Your task to perform on an android device: Clear the cart on newegg. Add razer naga to the cart on newegg, then select checkout. Image 0: 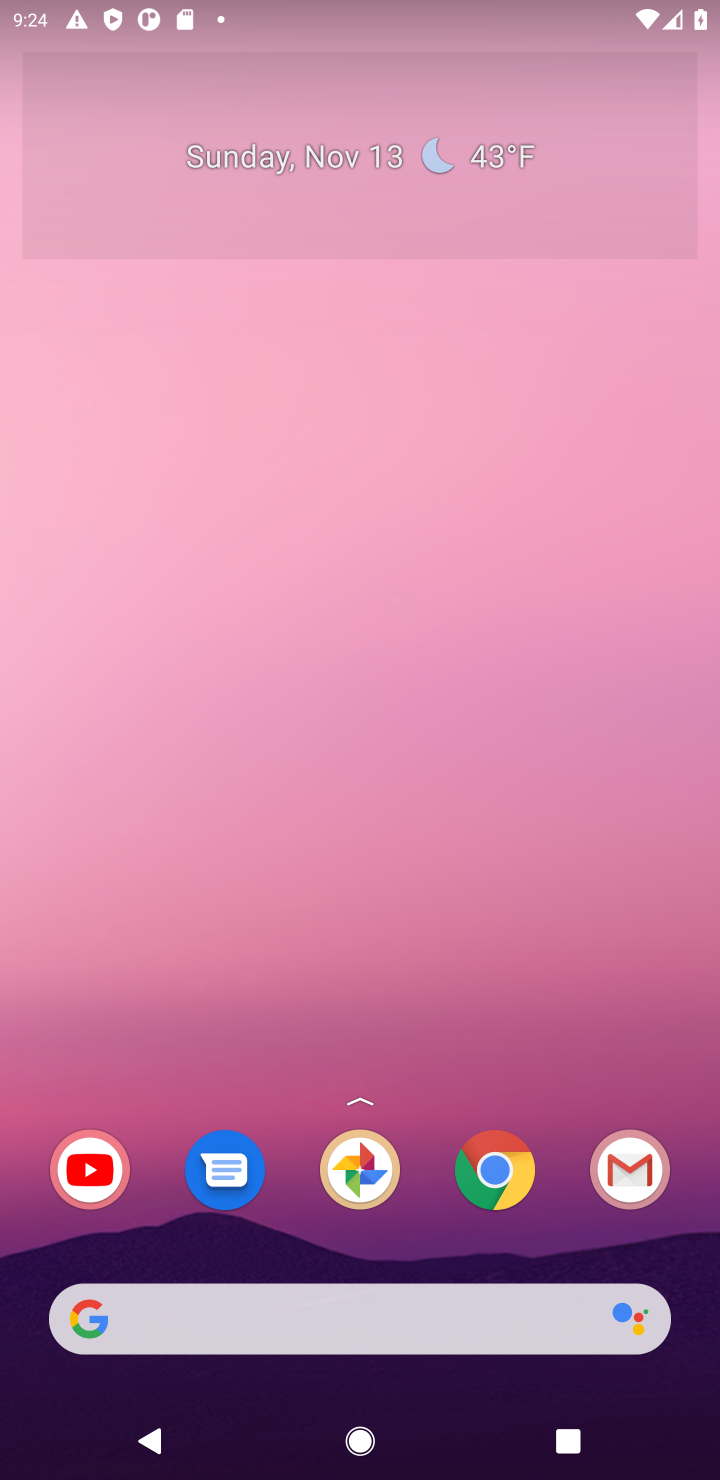
Step 0: drag from (357, 639) to (9, 601)
Your task to perform on an android device: Clear the cart on newegg. Add razer naga to the cart on newegg, then select checkout. Image 1: 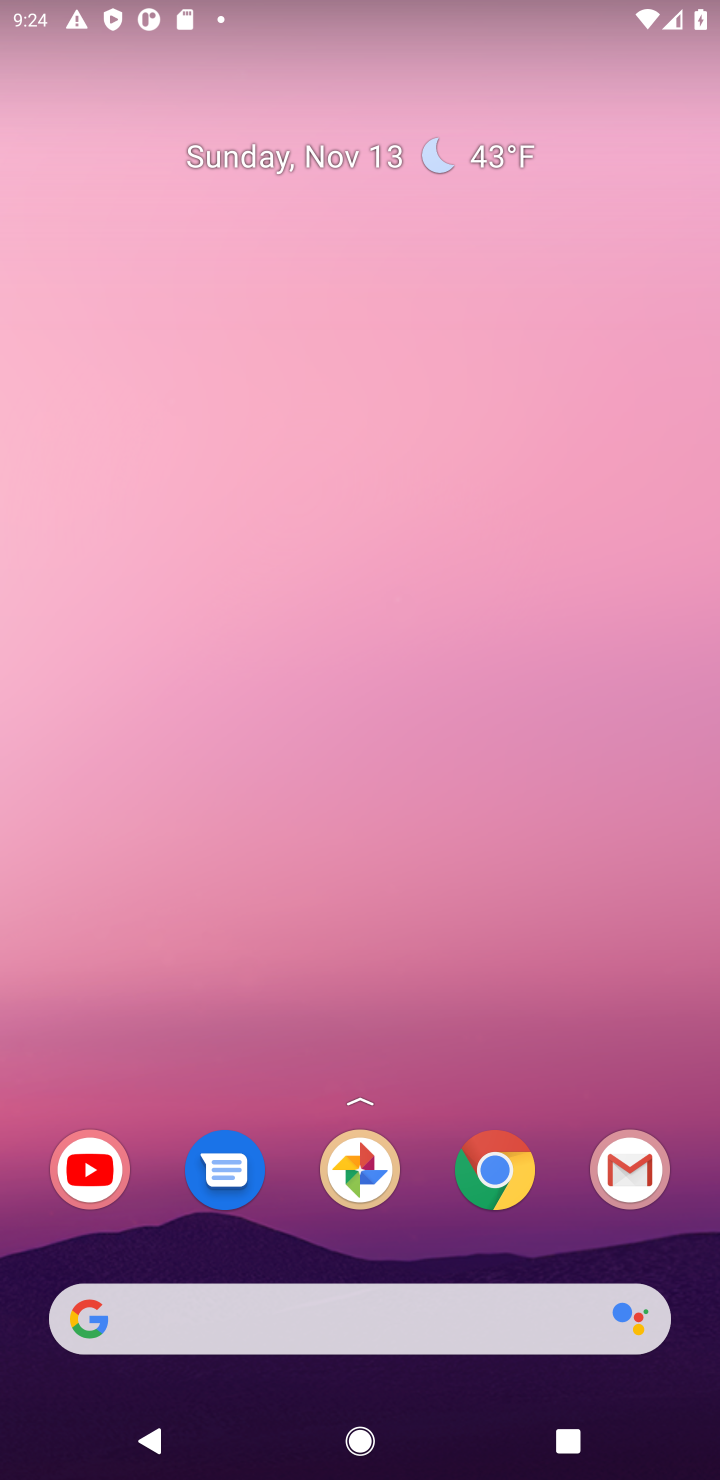
Step 1: drag from (333, 1146) to (331, 0)
Your task to perform on an android device: Clear the cart on newegg. Add razer naga to the cart on newegg, then select checkout. Image 2: 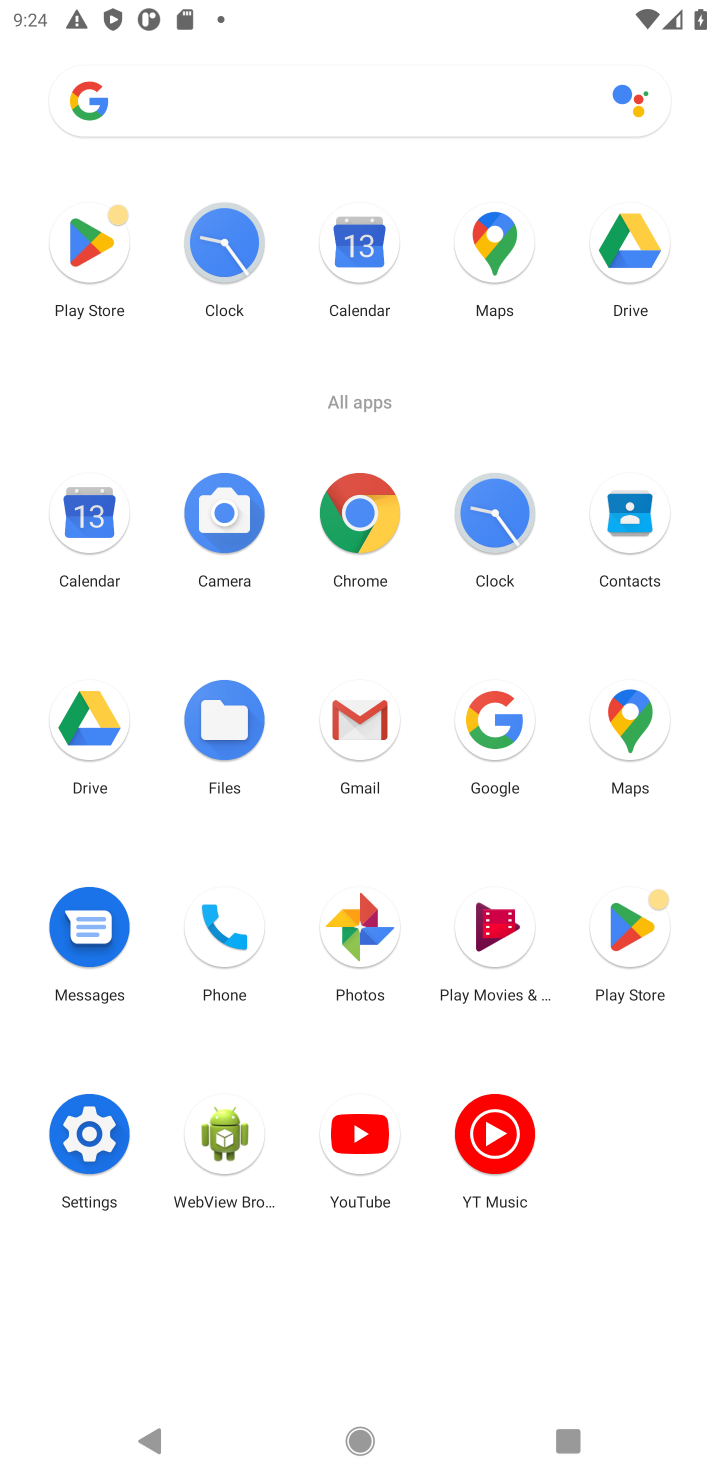
Step 2: click (380, 597)
Your task to perform on an android device: Clear the cart on newegg. Add razer naga to the cart on newegg, then select checkout. Image 3: 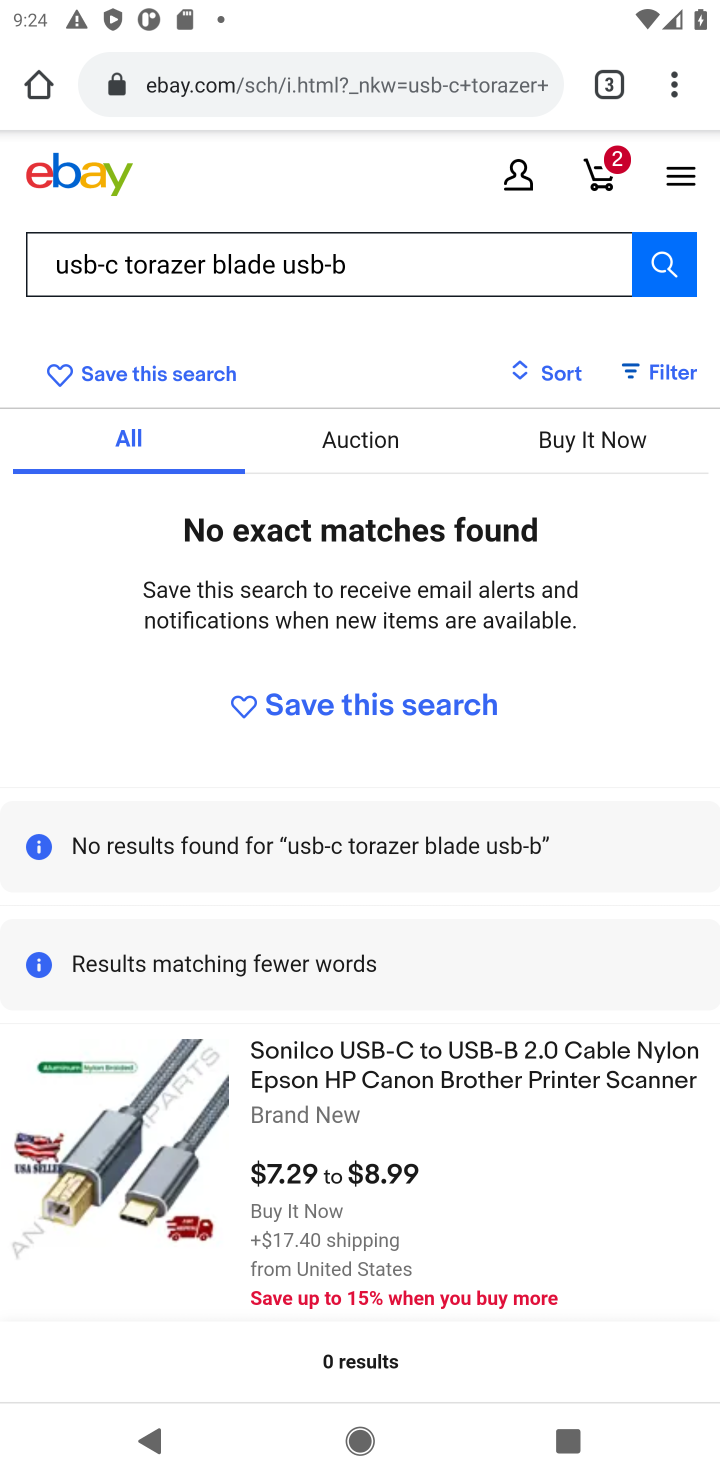
Step 3: click (294, 82)
Your task to perform on an android device: Clear the cart on newegg. Add razer naga to the cart on newegg, then select checkout. Image 4: 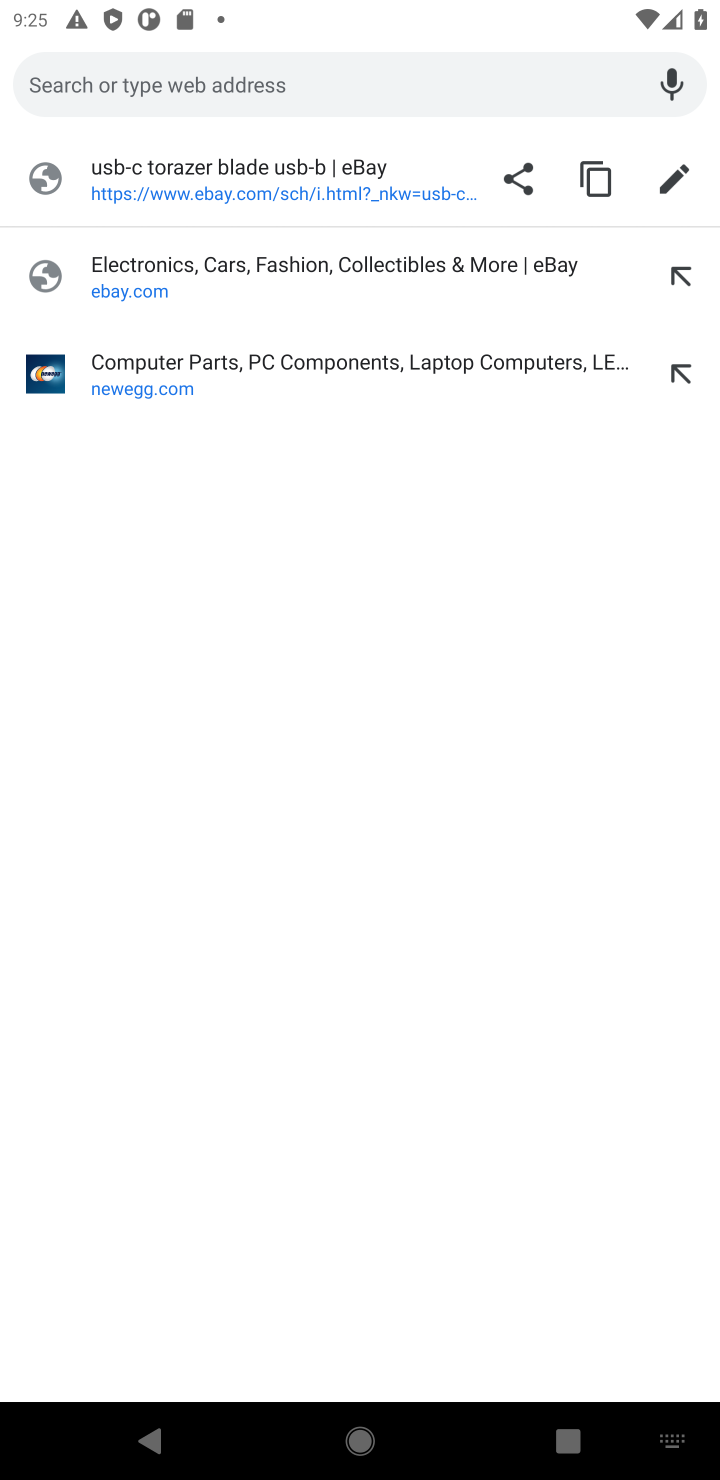
Step 4: type " newegg"
Your task to perform on an android device: Clear the cart on newegg. Add razer naga to the cart on newegg, then select checkout. Image 5: 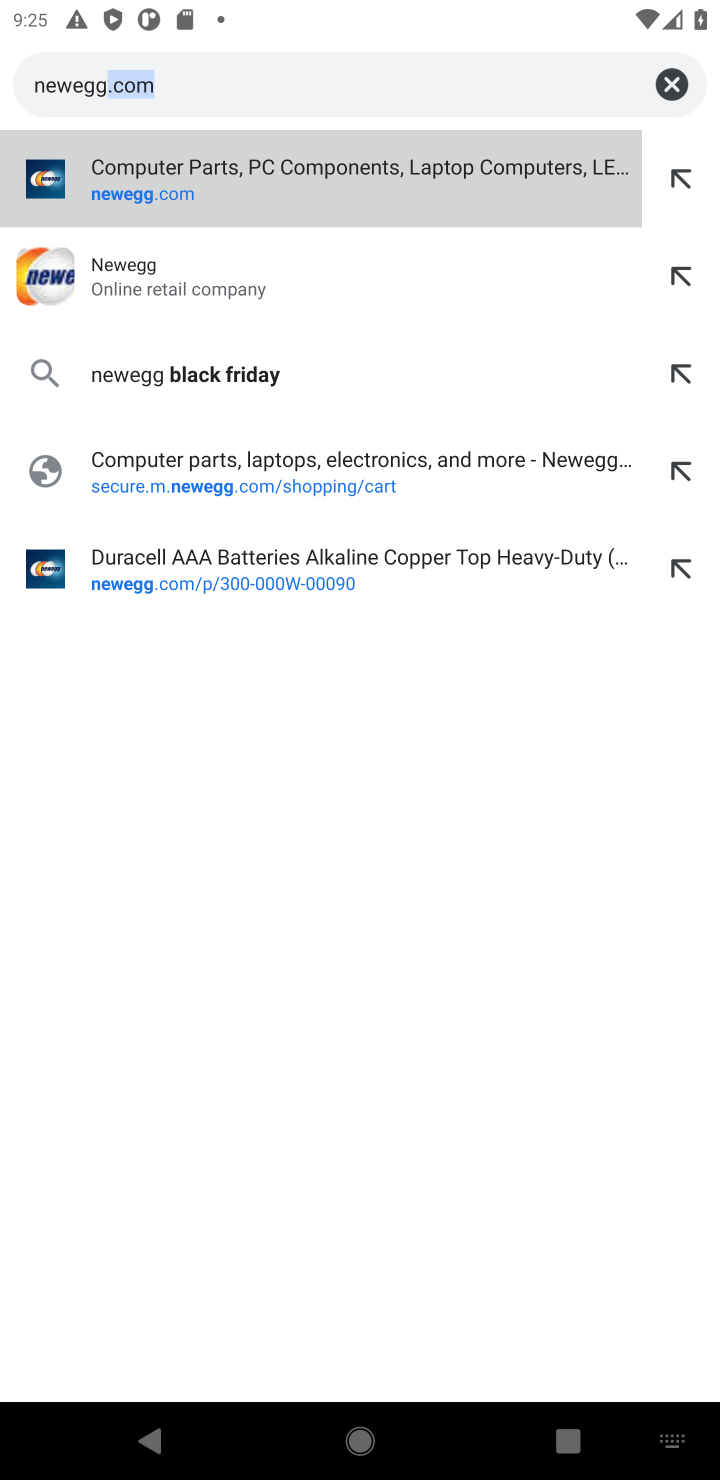
Step 5: press enter
Your task to perform on an android device: Clear the cart on newegg. Add razer naga to the cart on newegg, then select checkout. Image 6: 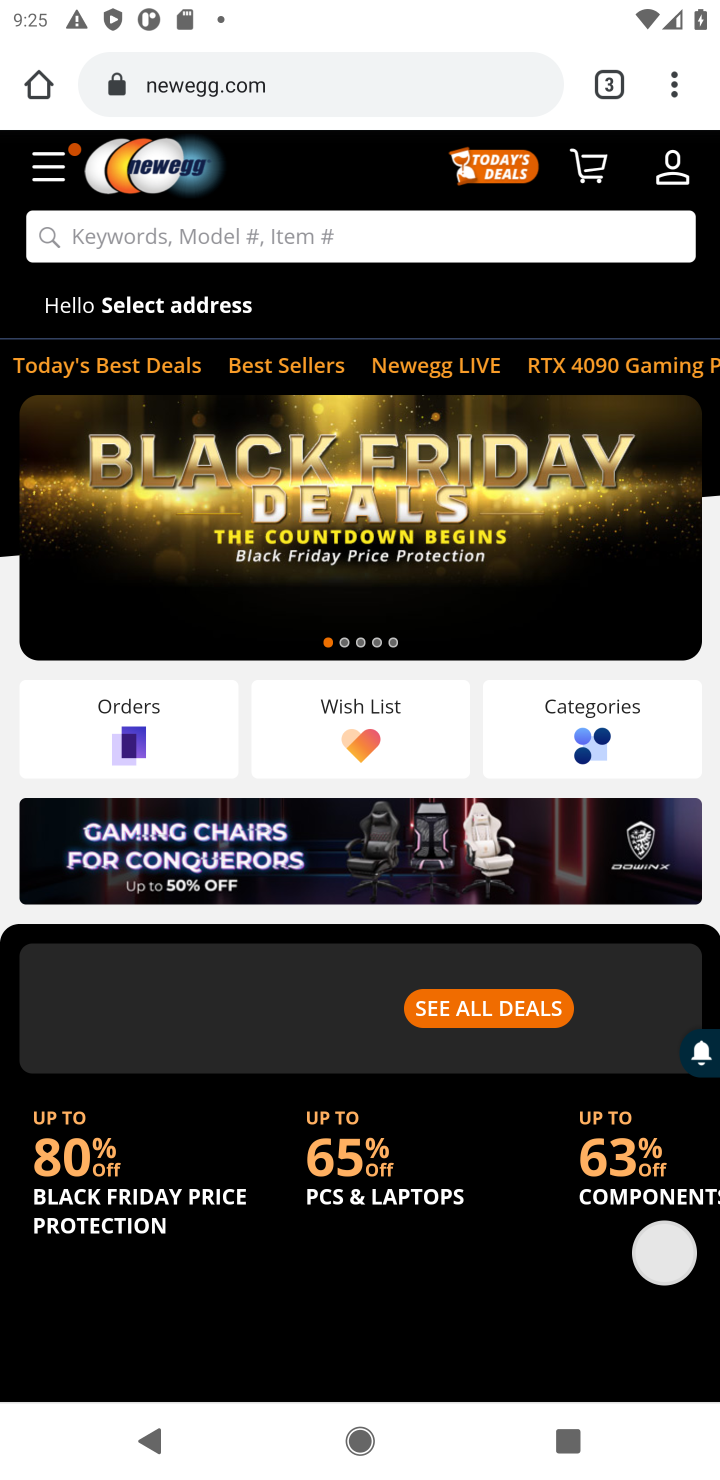
Step 6: click (312, 235)
Your task to perform on an android device: Clear the cart on newegg. Add razer naga to the cart on newegg, then select checkout. Image 7: 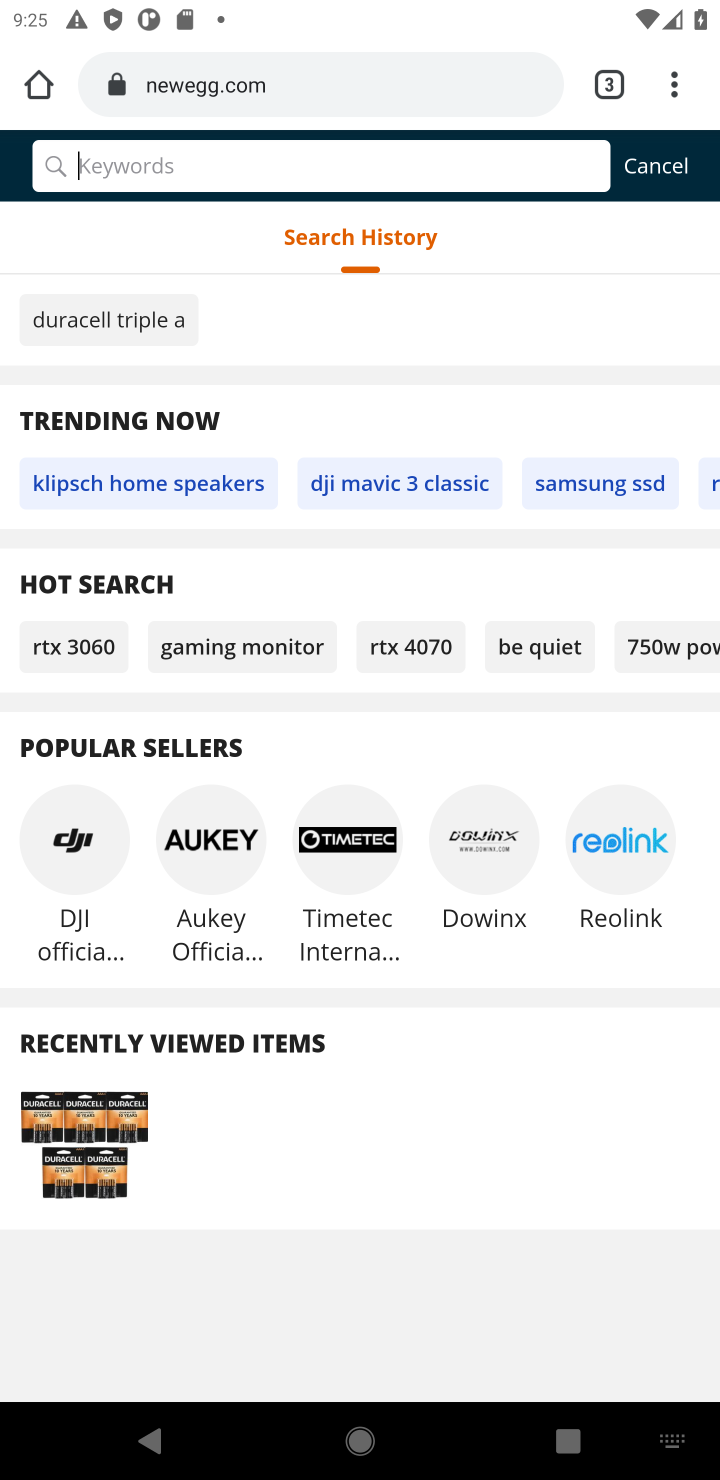
Step 7: type "razer naga "
Your task to perform on an android device: Clear the cart on newegg. Add razer naga to the cart on newegg, then select checkout. Image 8: 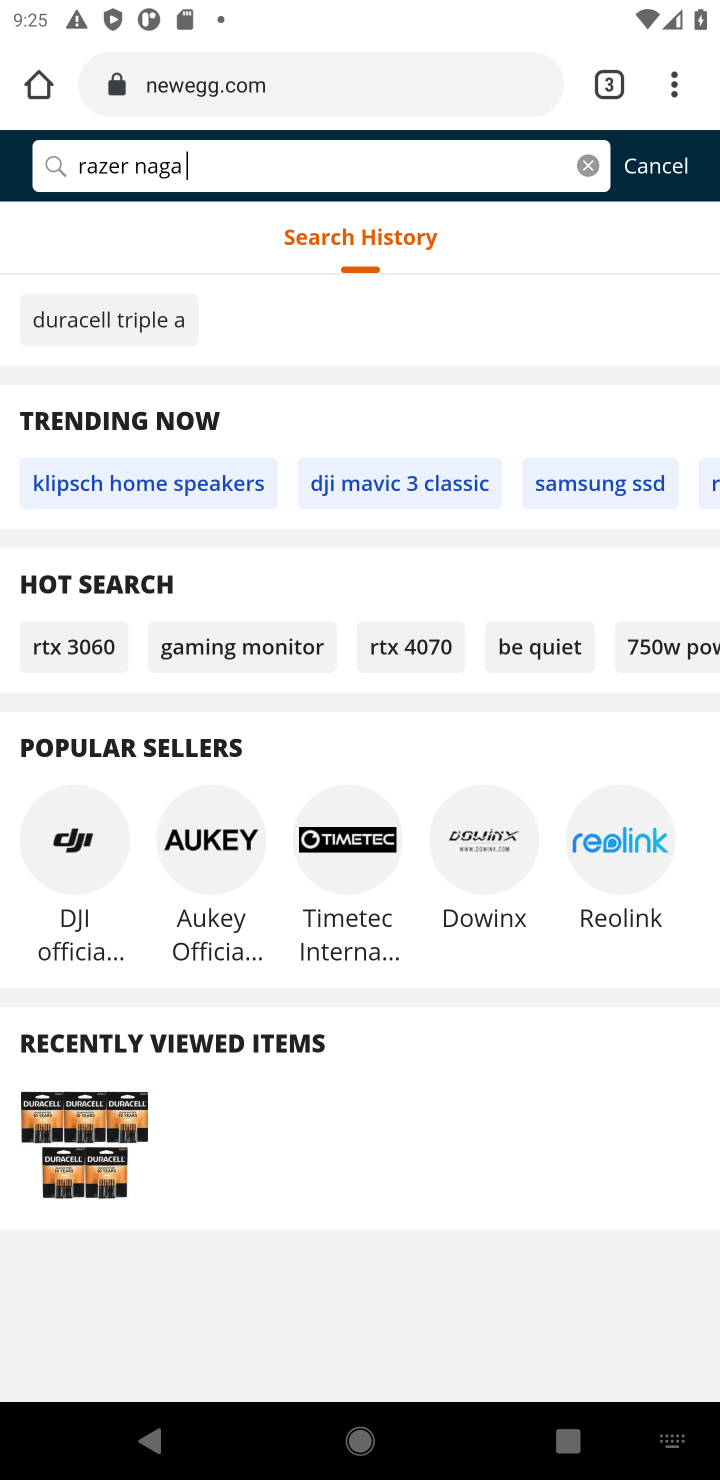
Step 8: press enter
Your task to perform on an android device: Clear the cart on newegg. Add razer naga to the cart on newegg, then select checkout. Image 9: 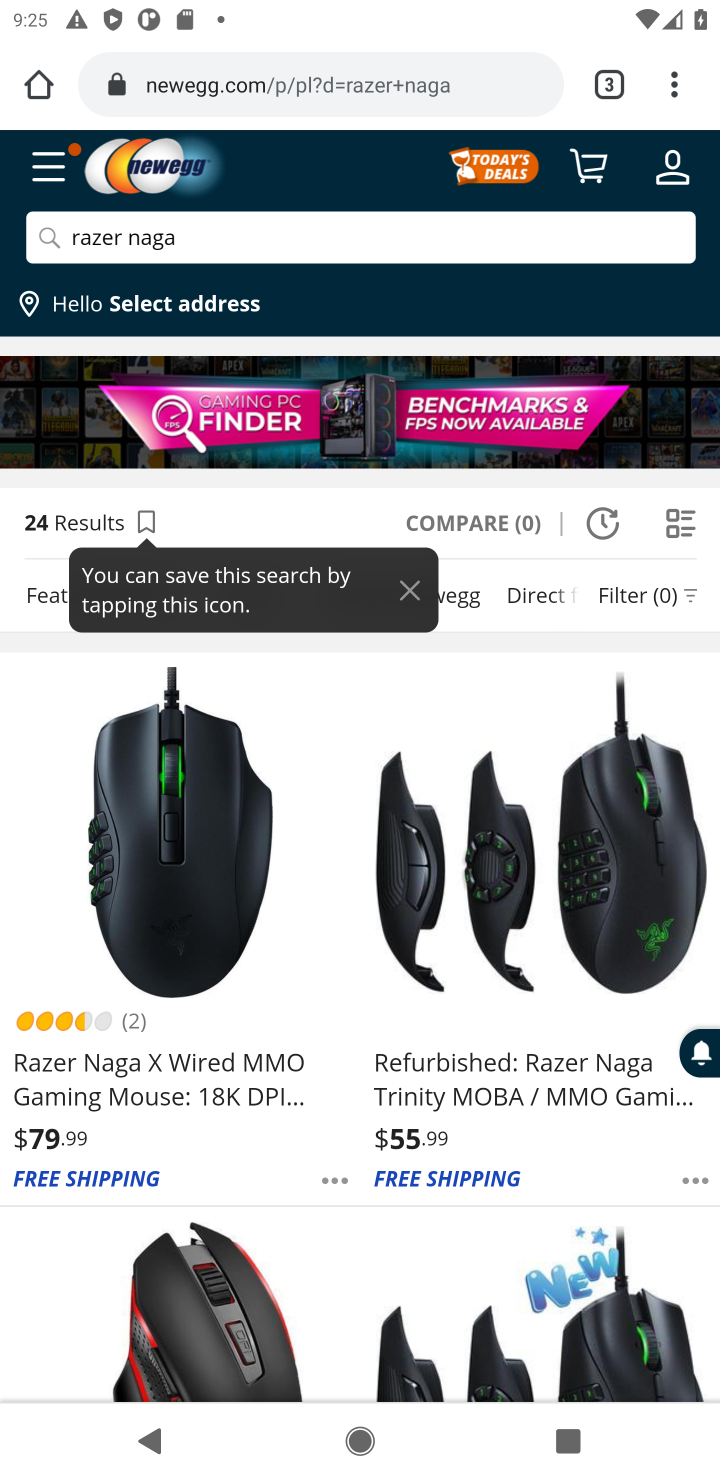
Step 9: click (104, 1032)
Your task to perform on an android device: Clear the cart on newegg. Add razer naga to the cart on newegg, then select checkout. Image 10: 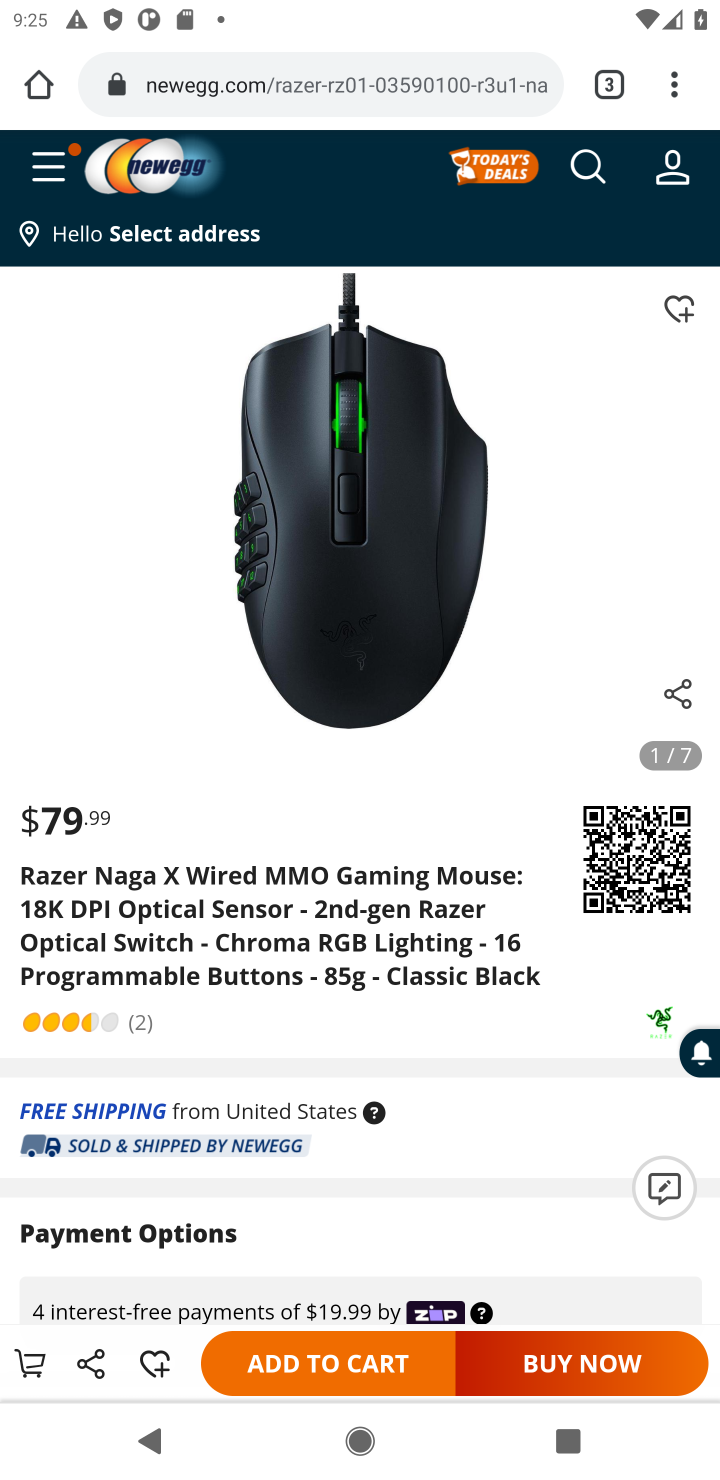
Step 10: click (326, 1350)
Your task to perform on an android device: Clear the cart on newegg. Add razer naga to the cart on newegg, then select checkout. Image 11: 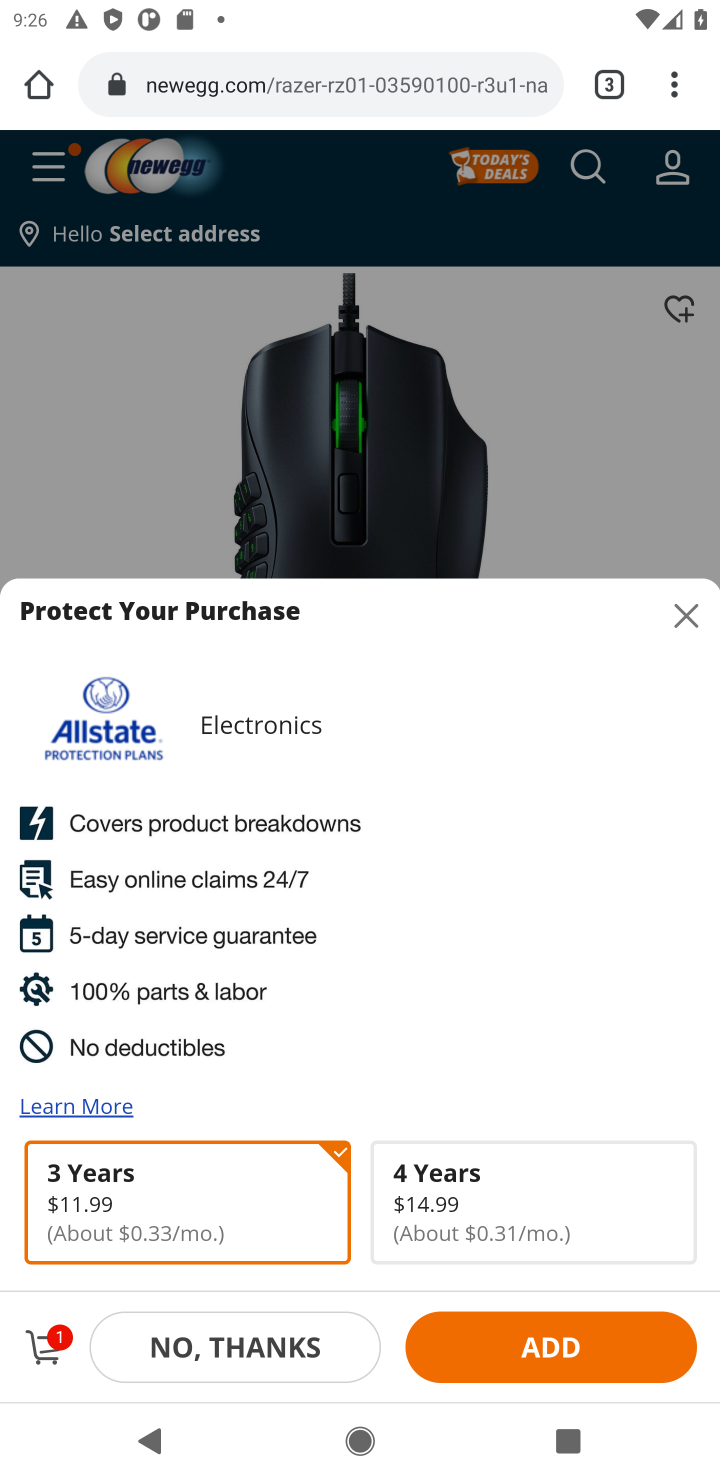
Step 11: click (477, 1338)
Your task to perform on an android device: Clear the cart on newegg. Add razer naga to the cart on newegg, then select checkout. Image 12: 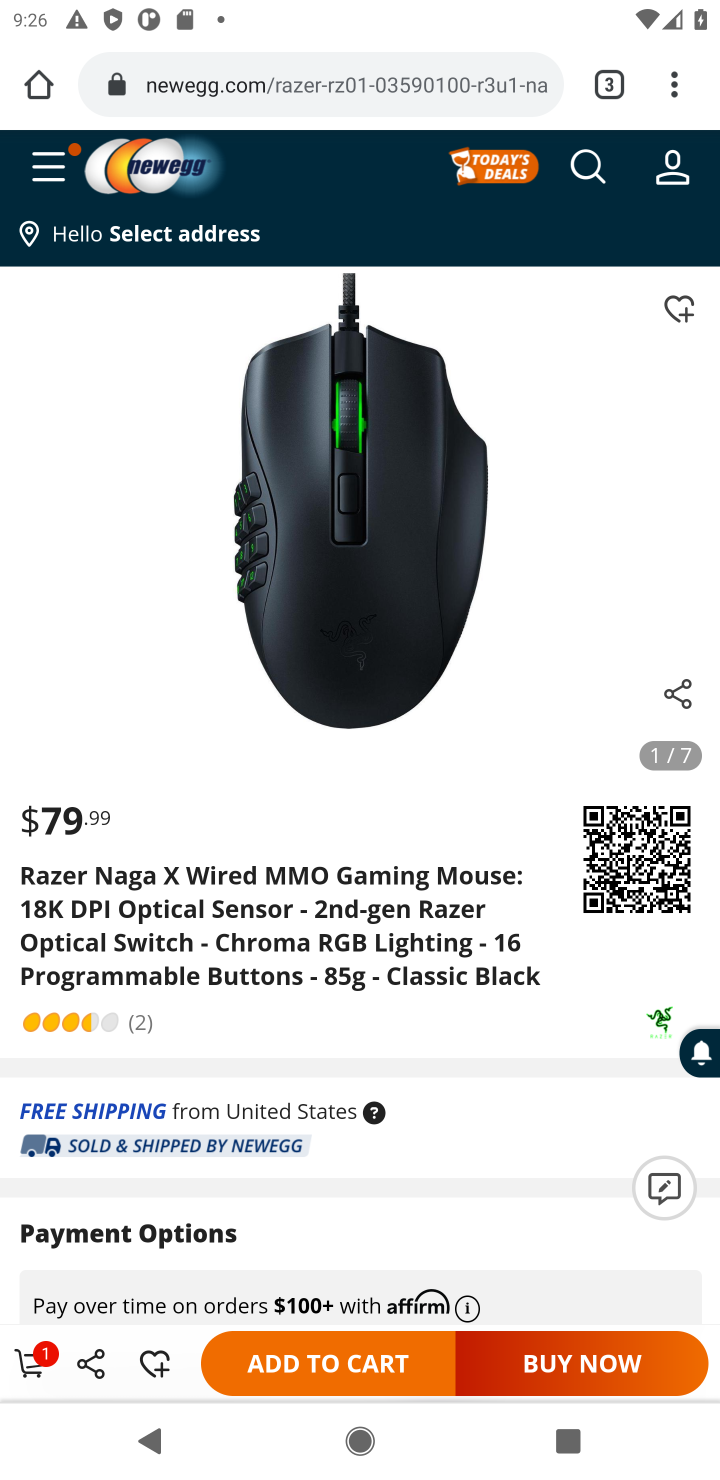
Step 12: click (30, 1358)
Your task to perform on an android device: Clear the cart on newegg. Add razer naga to the cart on newegg, then select checkout. Image 13: 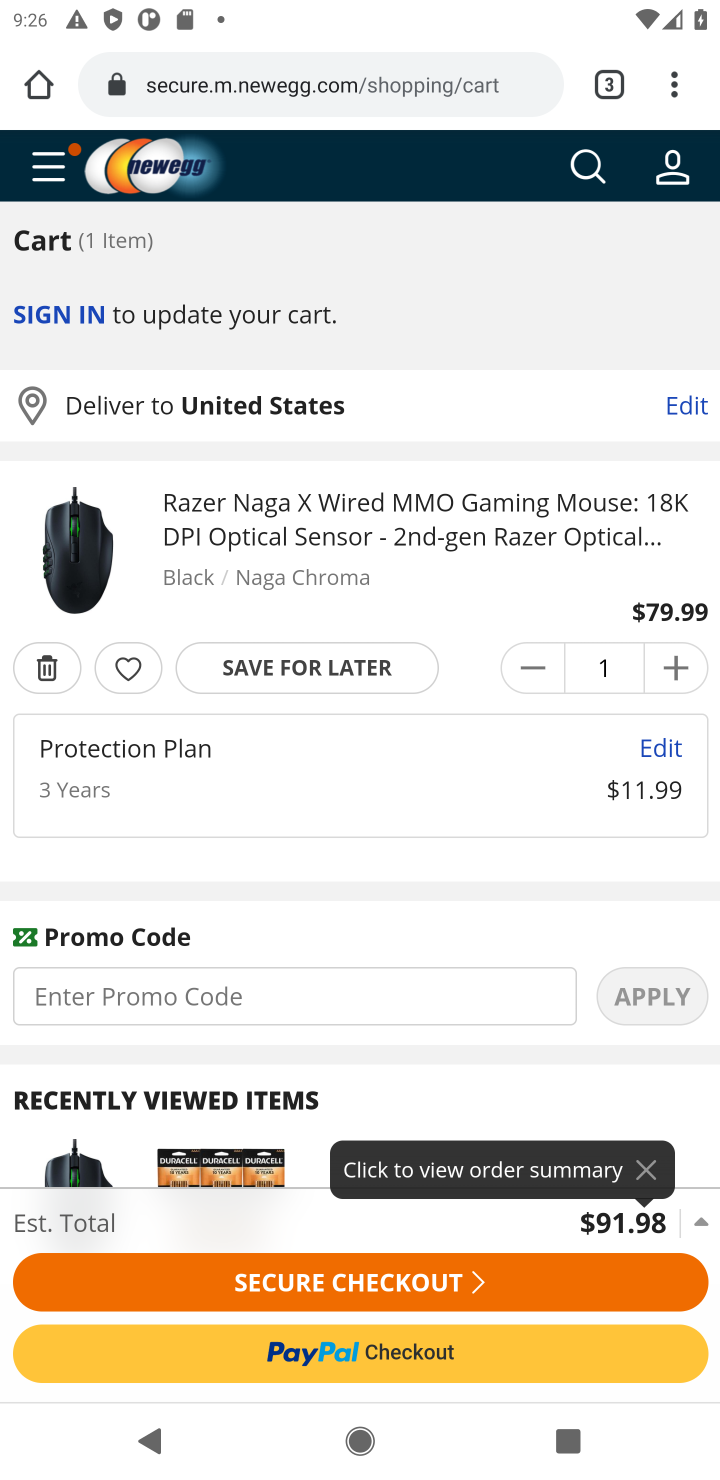
Step 13: click (364, 1296)
Your task to perform on an android device: Clear the cart on newegg. Add razer naga to the cart on newegg, then select checkout. Image 14: 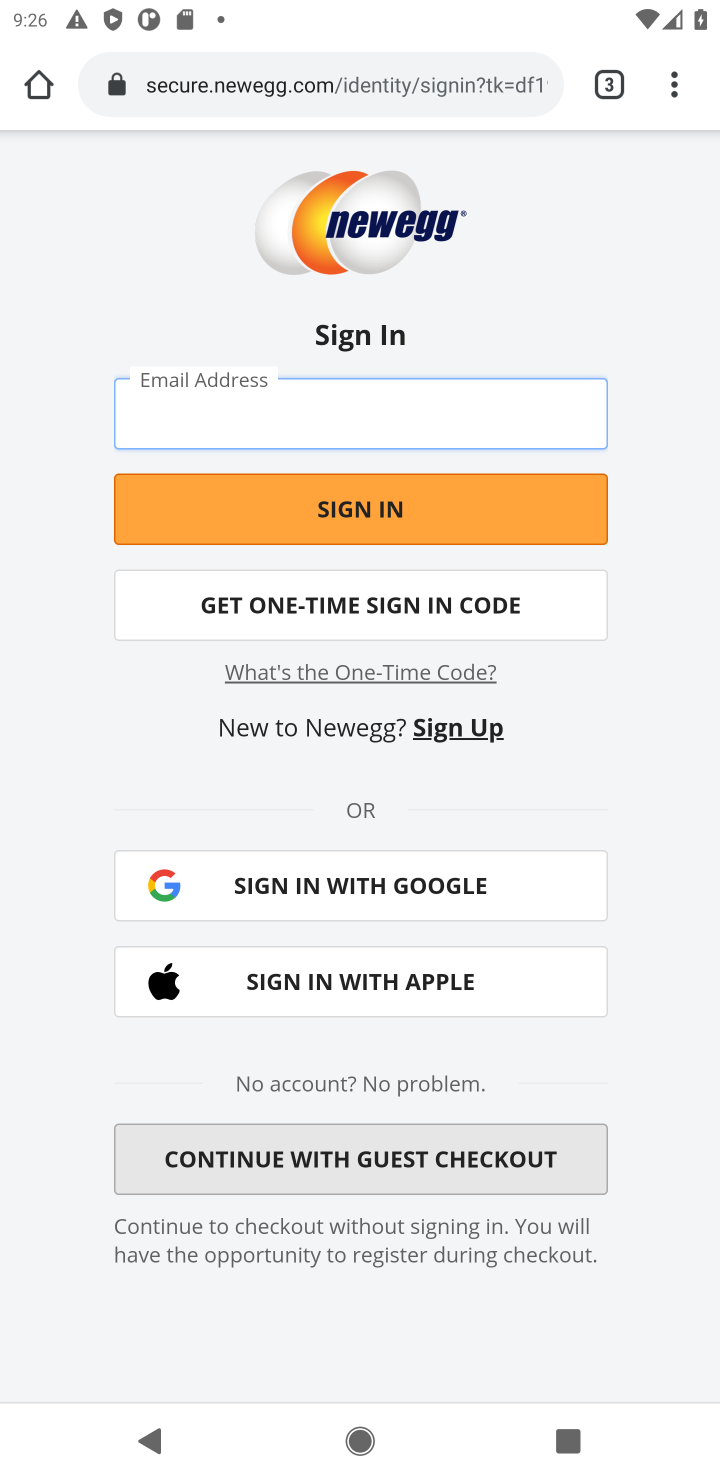
Step 14: task complete